Your task to perform on an android device: see creations saved in the google photos Image 0: 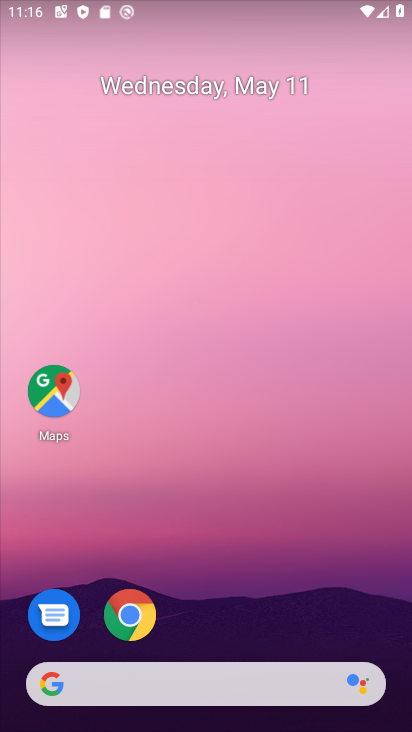
Step 0: drag from (225, 528) to (201, 273)
Your task to perform on an android device: see creations saved in the google photos Image 1: 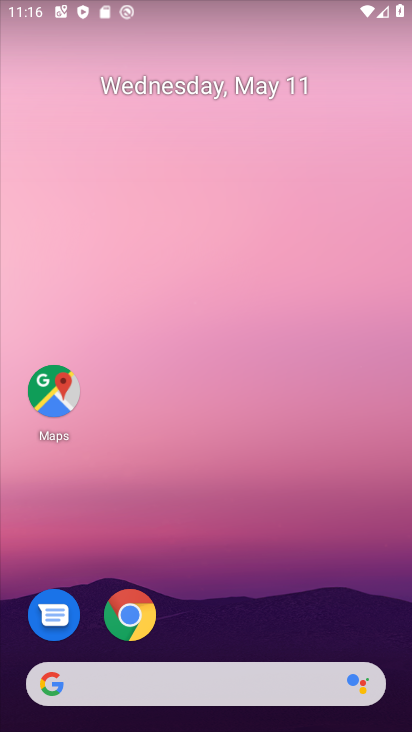
Step 1: drag from (216, 556) to (173, 49)
Your task to perform on an android device: see creations saved in the google photos Image 2: 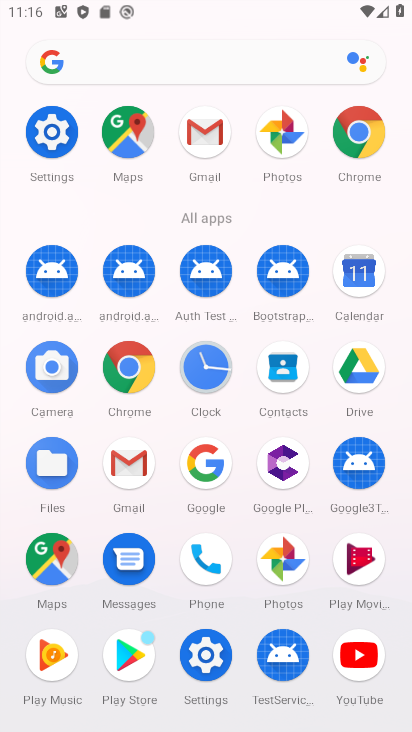
Step 2: click (273, 134)
Your task to perform on an android device: see creations saved in the google photos Image 3: 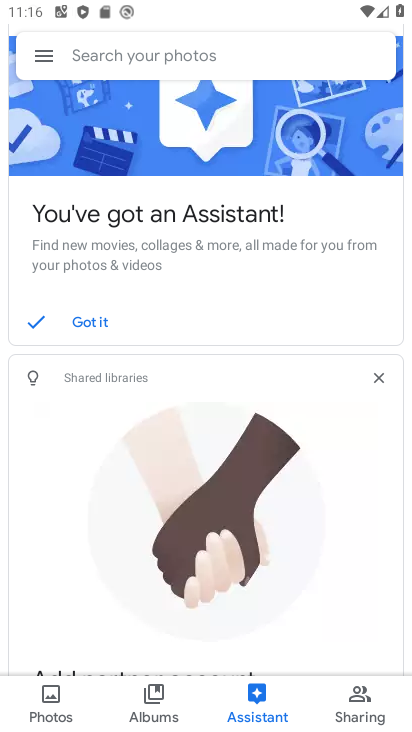
Step 3: click (125, 58)
Your task to perform on an android device: see creations saved in the google photos Image 4: 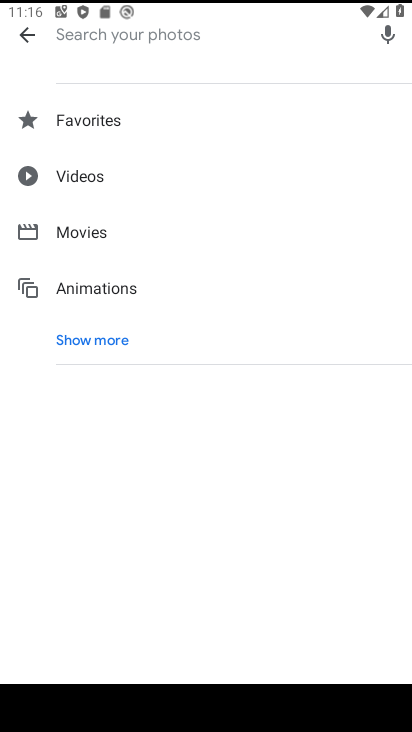
Step 4: click (89, 336)
Your task to perform on an android device: see creations saved in the google photos Image 5: 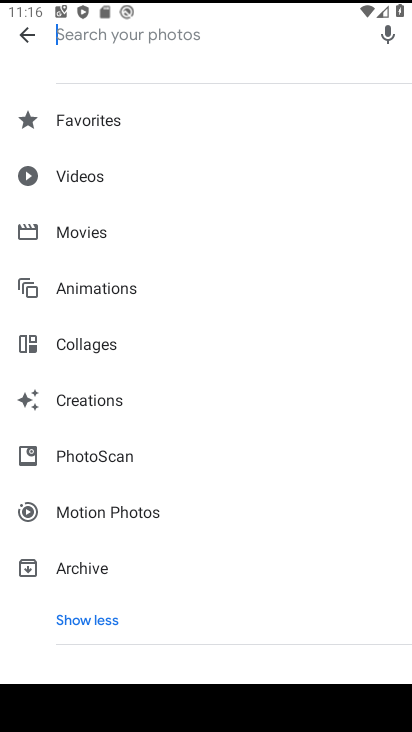
Step 5: click (84, 394)
Your task to perform on an android device: see creations saved in the google photos Image 6: 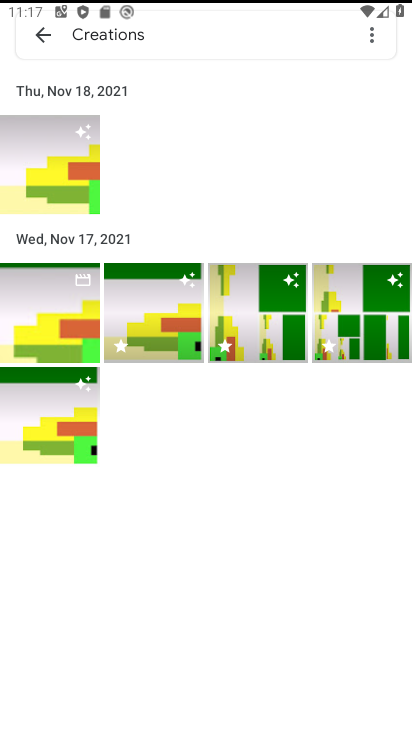
Step 6: task complete